Your task to perform on an android device: find snoozed emails in the gmail app Image 0: 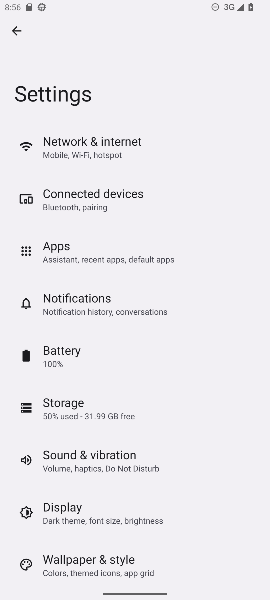
Step 0: press home button
Your task to perform on an android device: find snoozed emails in the gmail app Image 1: 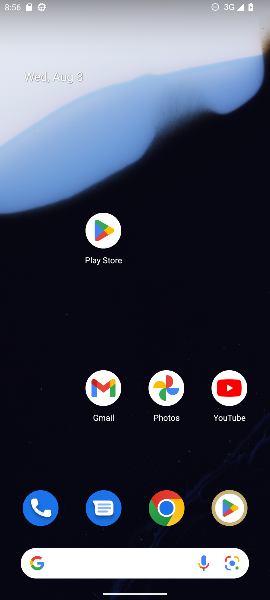
Step 1: drag from (135, 537) to (135, 49)
Your task to perform on an android device: find snoozed emails in the gmail app Image 2: 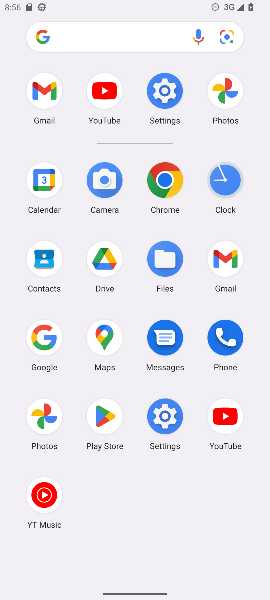
Step 2: click (236, 261)
Your task to perform on an android device: find snoozed emails in the gmail app Image 3: 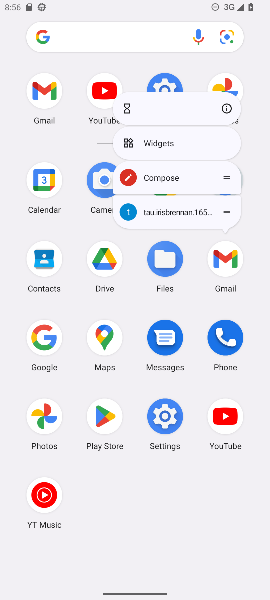
Step 3: click (232, 265)
Your task to perform on an android device: find snoozed emails in the gmail app Image 4: 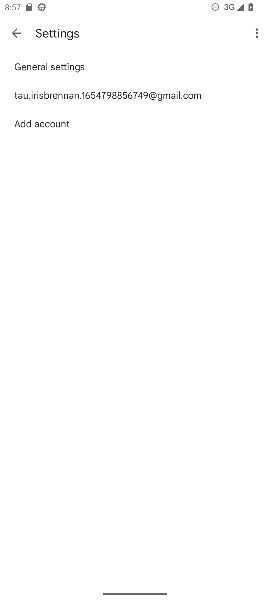
Step 4: click (24, 36)
Your task to perform on an android device: find snoozed emails in the gmail app Image 5: 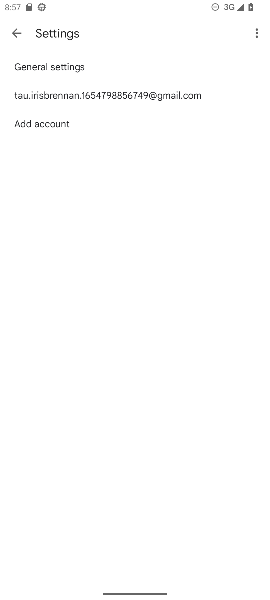
Step 5: click (29, 38)
Your task to perform on an android device: find snoozed emails in the gmail app Image 6: 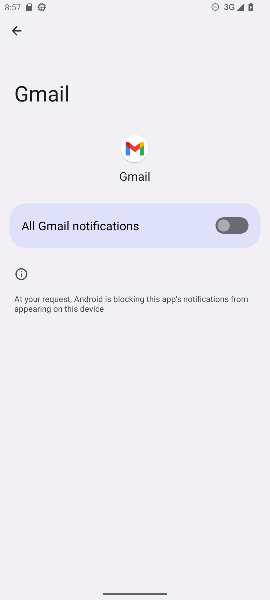
Step 6: click (21, 38)
Your task to perform on an android device: find snoozed emails in the gmail app Image 7: 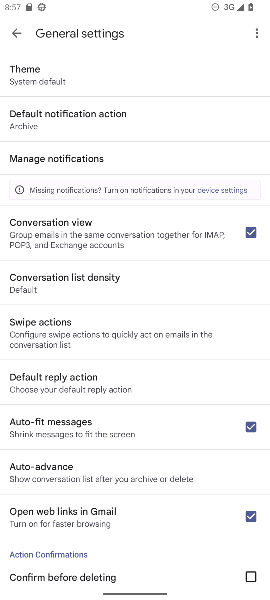
Step 7: click (18, 36)
Your task to perform on an android device: find snoozed emails in the gmail app Image 8: 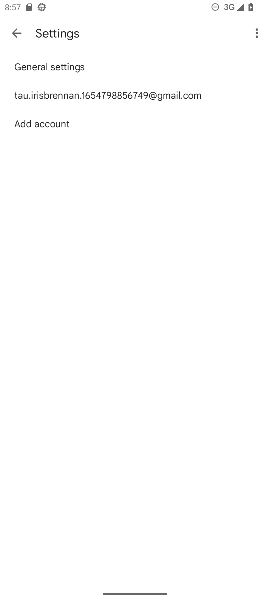
Step 8: click (18, 36)
Your task to perform on an android device: find snoozed emails in the gmail app Image 9: 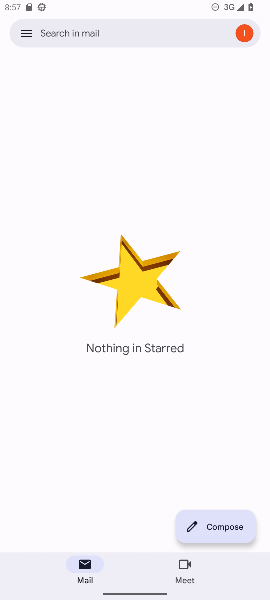
Step 9: click (18, 36)
Your task to perform on an android device: find snoozed emails in the gmail app Image 10: 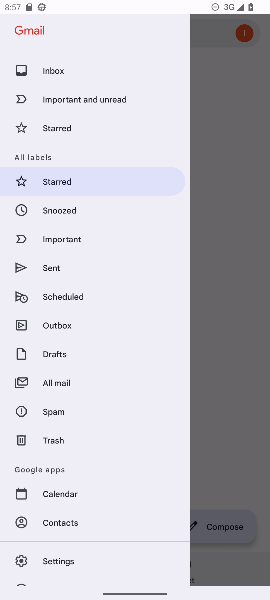
Step 10: click (73, 214)
Your task to perform on an android device: find snoozed emails in the gmail app Image 11: 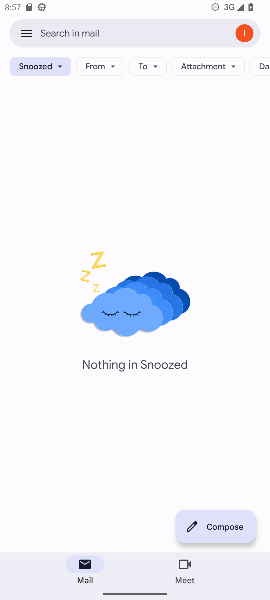
Step 11: task complete